Your task to perform on an android device: stop showing notifications on the lock screen Image 0: 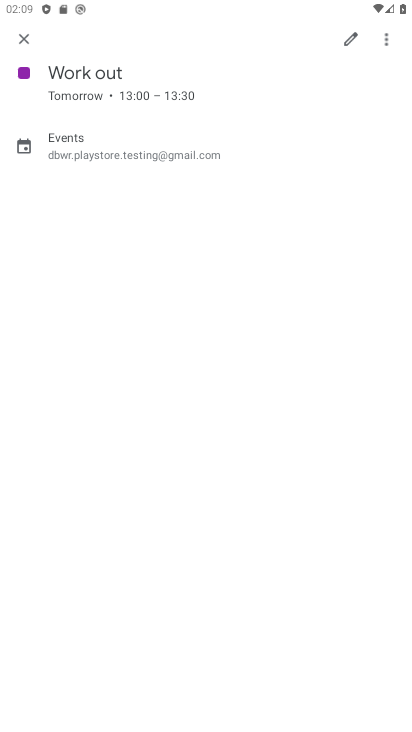
Step 0: press back button
Your task to perform on an android device: stop showing notifications on the lock screen Image 1: 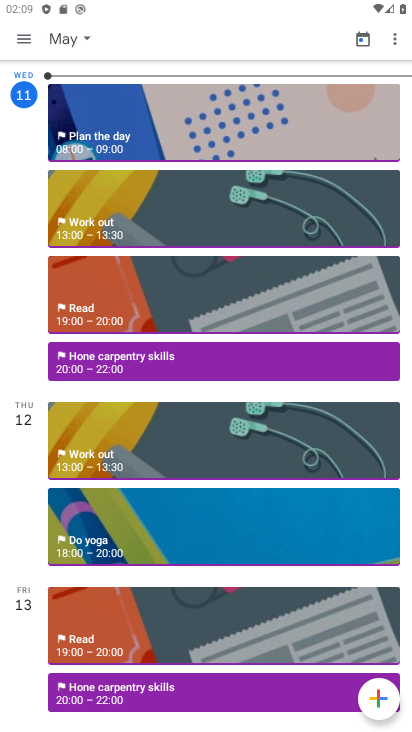
Step 1: press back button
Your task to perform on an android device: stop showing notifications on the lock screen Image 2: 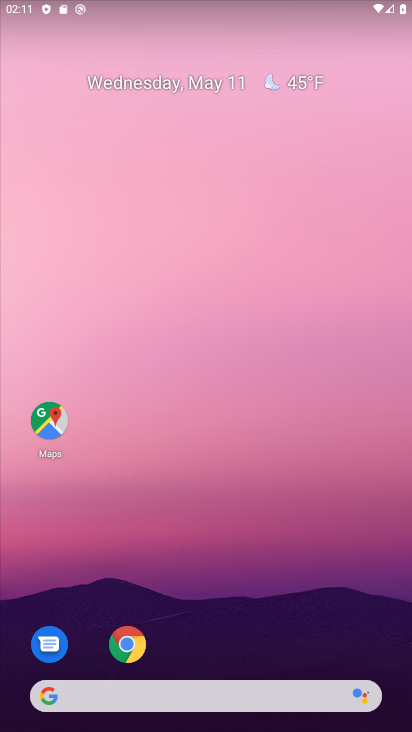
Step 2: drag from (215, 560) to (337, 112)
Your task to perform on an android device: stop showing notifications on the lock screen Image 3: 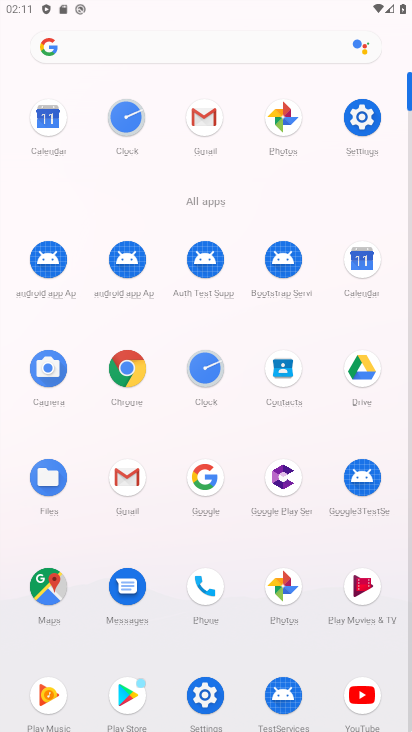
Step 3: click (364, 129)
Your task to perform on an android device: stop showing notifications on the lock screen Image 4: 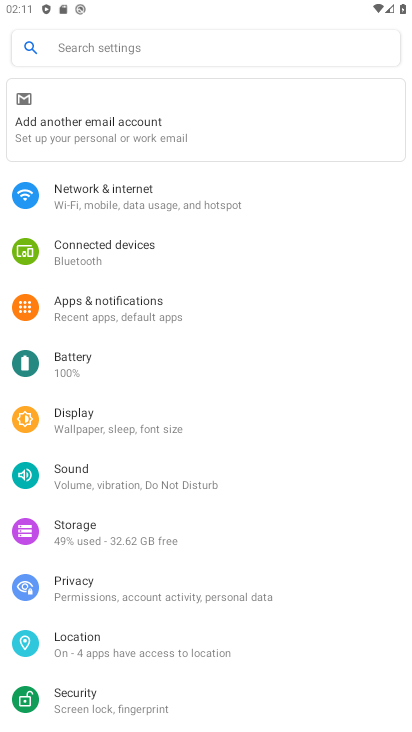
Step 4: click (158, 310)
Your task to perform on an android device: stop showing notifications on the lock screen Image 5: 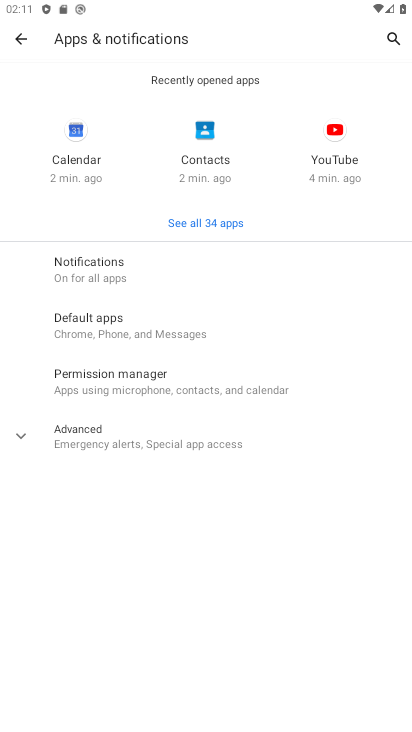
Step 5: click (115, 272)
Your task to perform on an android device: stop showing notifications on the lock screen Image 6: 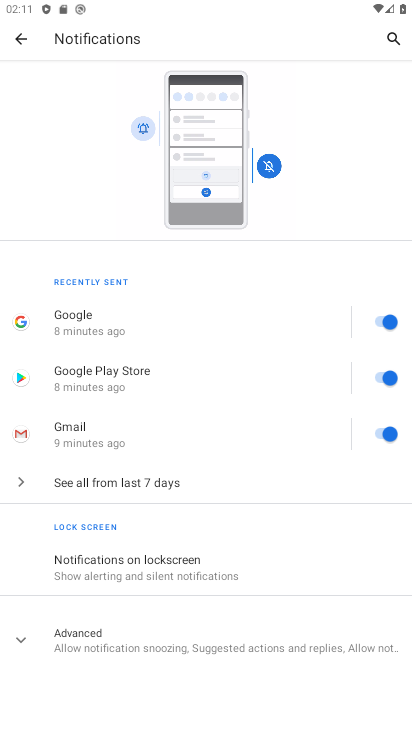
Step 6: click (142, 578)
Your task to perform on an android device: stop showing notifications on the lock screen Image 7: 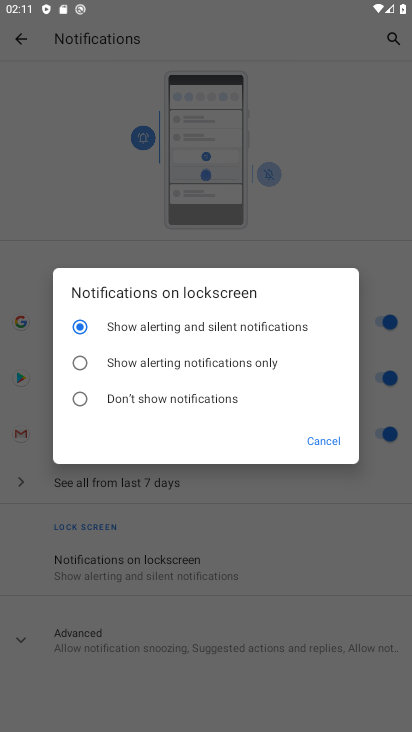
Step 7: click (79, 399)
Your task to perform on an android device: stop showing notifications on the lock screen Image 8: 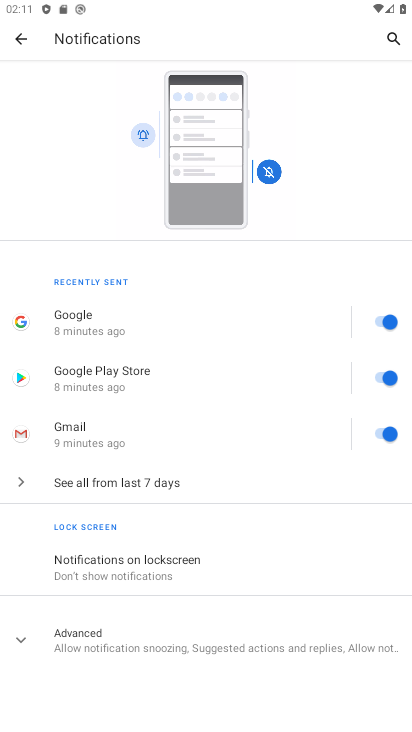
Step 8: task complete